Your task to perform on an android device: Open the web browser Image 0: 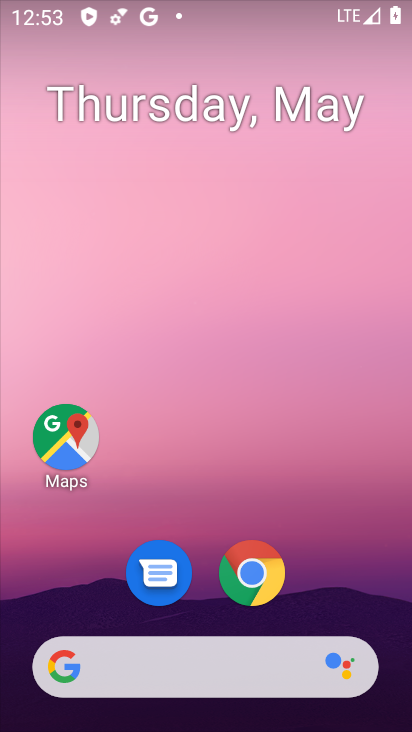
Step 0: drag from (355, 549) to (282, 18)
Your task to perform on an android device: Open the web browser Image 1: 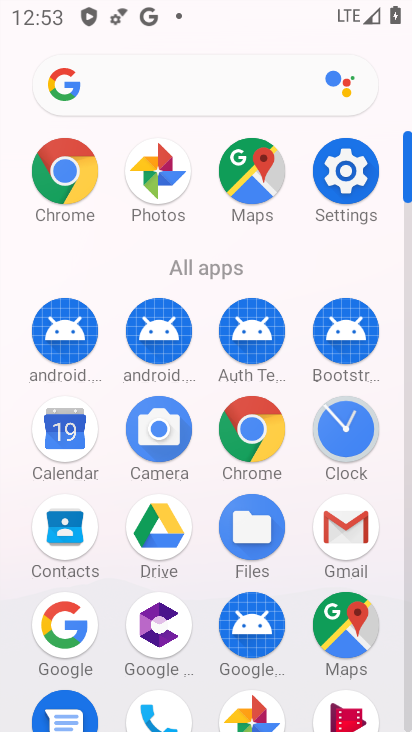
Step 1: drag from (16, 568) to (38, 228)
Your task to perform on an android device: Open the web browser Image 2: 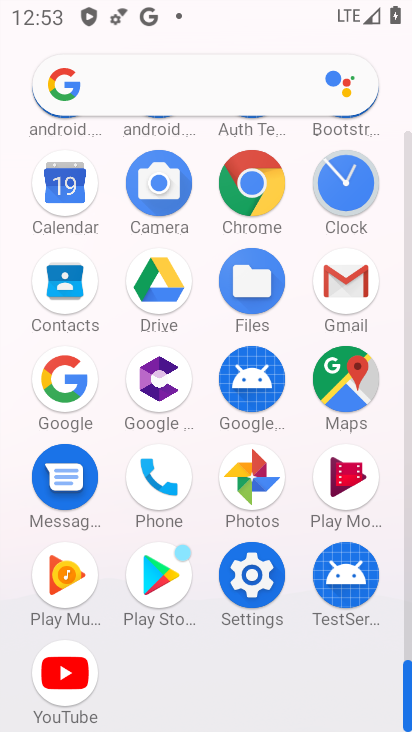
Step 2: click (255, 184)
Your task to perform on an android device: Open the web browser Image 3: 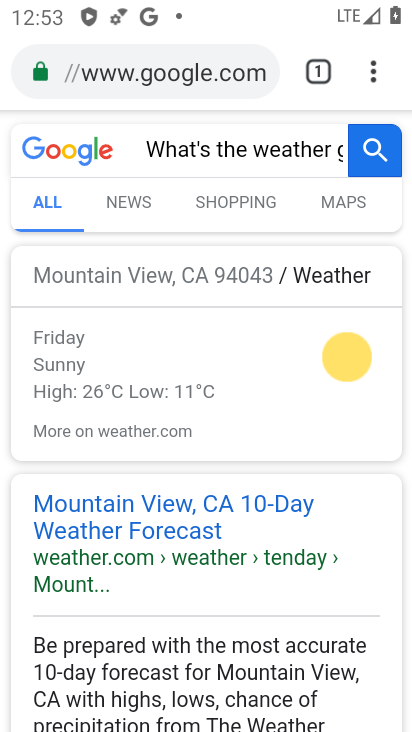
Step 3: task complete